Your task to perform on an android device: install app "Adobe Express: Graphic Design" Image 0: 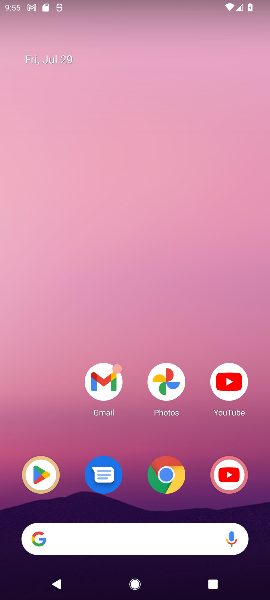
Step 0: drag from (194, 440) to (197, 30)
Your task to perform on an android device: install app "Adobe Express: Graphic Design" Image 1: 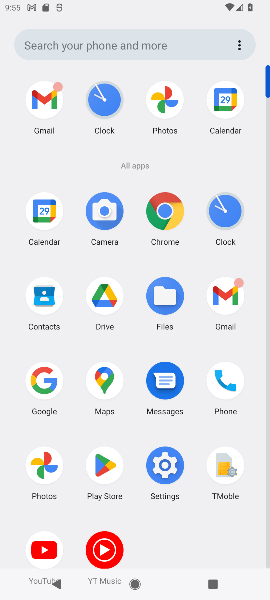
Step 1: click (108, 464)
Your task to perform on an android device: install app "Adobe Express: Graphic Design" Image 2: 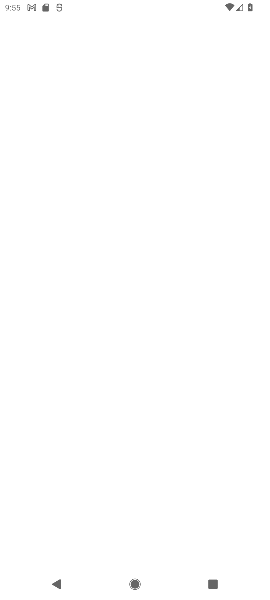
Step 2: task complete